Your task to perform on an android device: change text size in settings app Image 0: 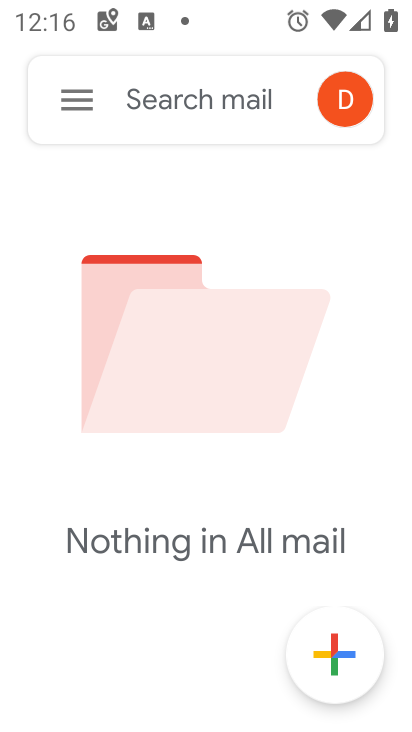
Step 0: press home button
Your task to perform on an android device: change text size in settings app Image 1: 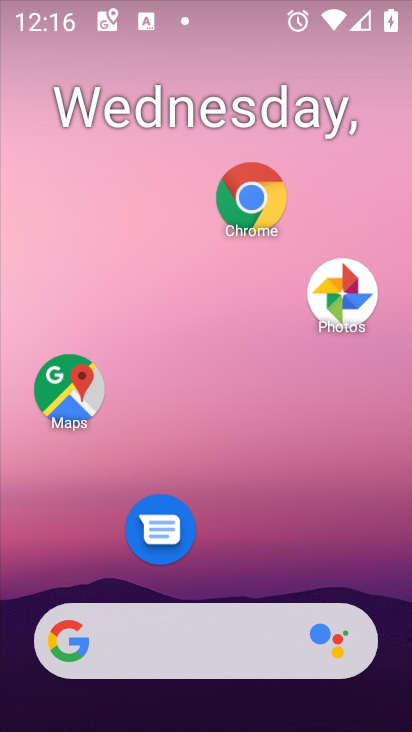
Step 1: drag from (233, 640) to (288, 134)
Your task to perform on an android device: change text size in settings app Image 2: 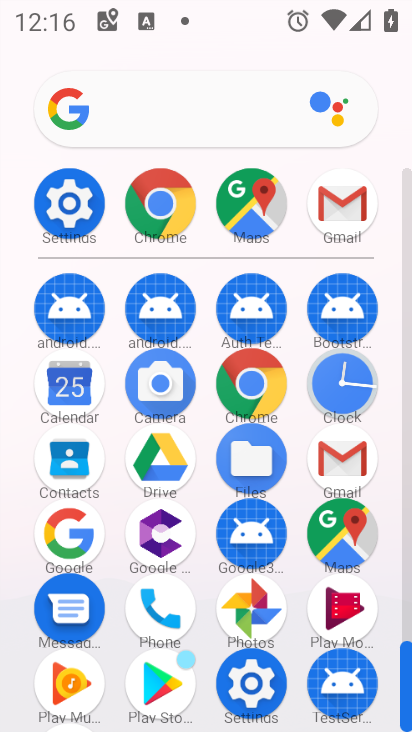
Step 2: click (71, 222)
Your task to perform on an android device: change text size in settings app Image 3: 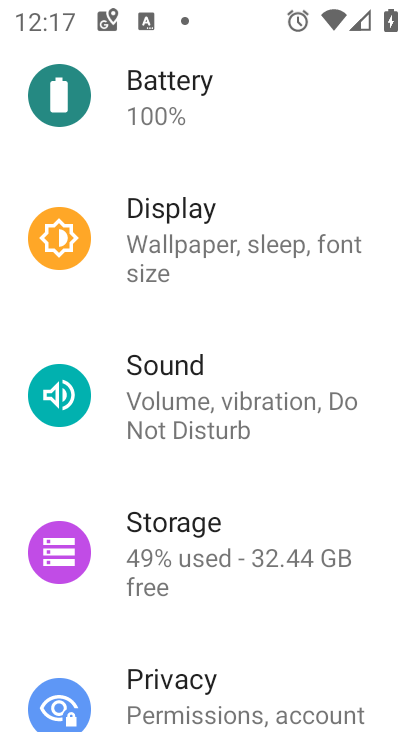
Step 3: click (188, 250)
Your task to perform on an android device: change text size in settings app Image 4: 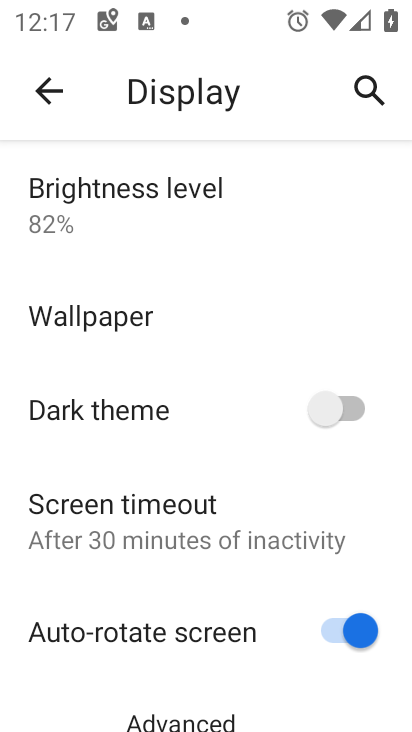
Step 4: drag from (137, 571) to (173, 255)
Your task to perform on an android device: change text size in settings app Image 5: 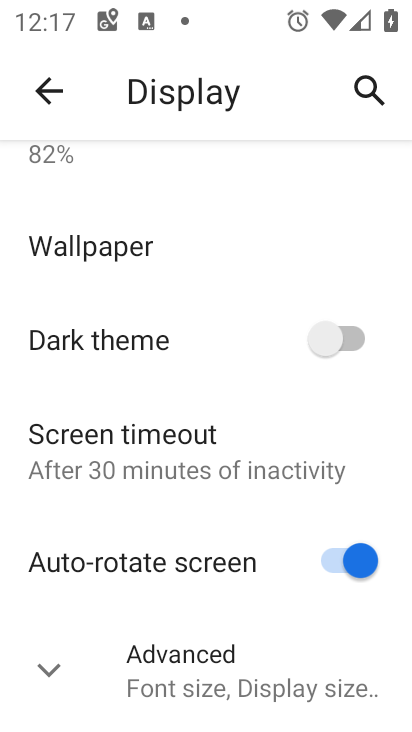
Step 5: click (115, 679)
Your task to perform on an android device: change text size in settings app Image 6: 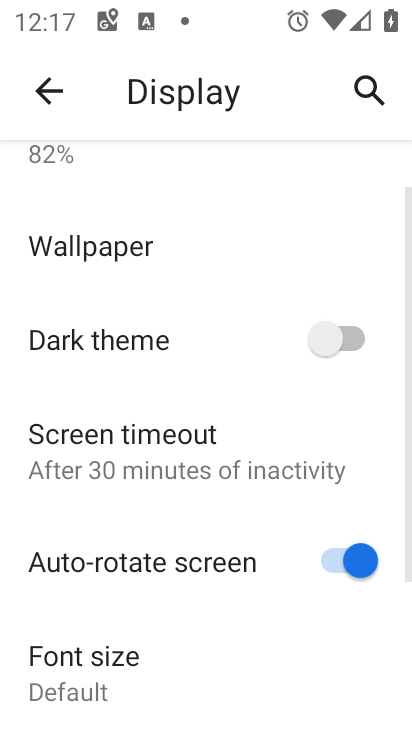
Step 6: click (114, 680)
Your task to perform on an android device: change text size in settings app Image 7: 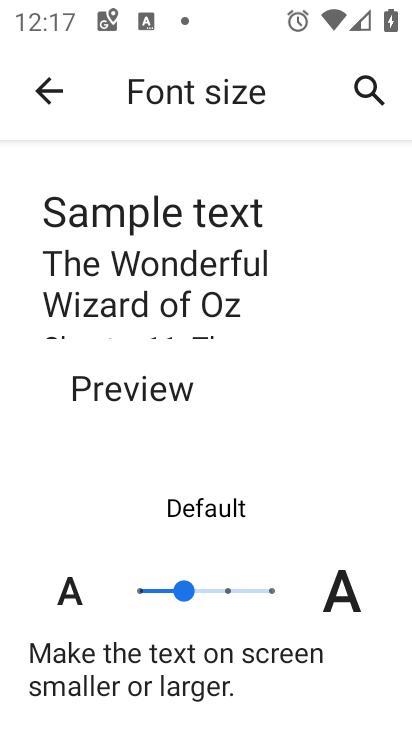
Step 7: click (224, 595)
Your task to perform on an android device: change text size in settings app Image 8: 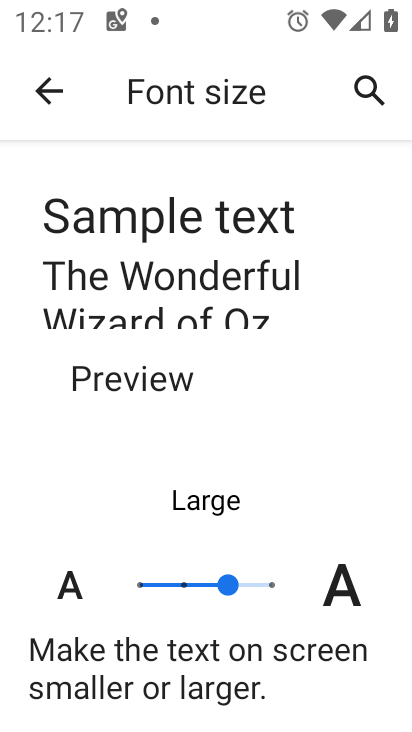
Step 8: task complete